Your task to perform on an android device: Go to privacy settings Image 0: 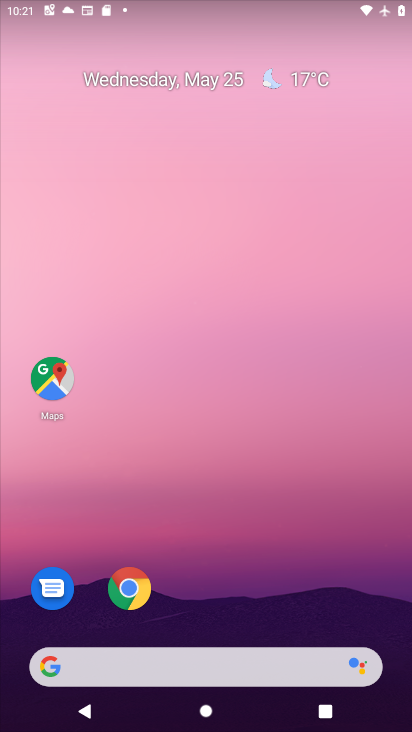
Step 0: drag from (380, 610) to (368, 209)
Your task to perform on an android device: Go to privacy settings Image 1: 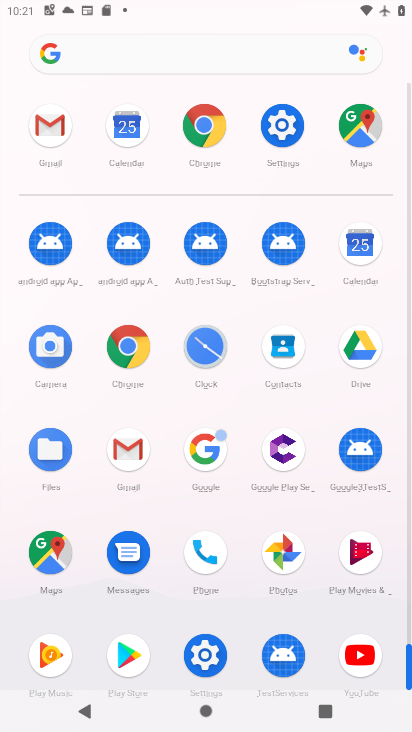
Step 1: click (208, 659)
Your task to perform on an android device: Go to privacy settings Image 2: 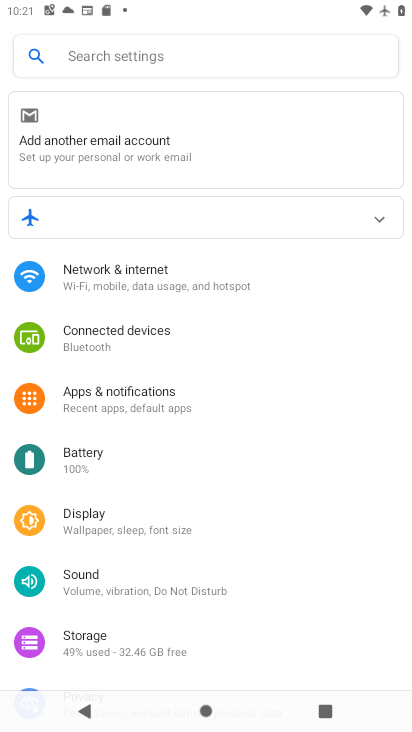
Step 2: drag from (325, 479) to (321, 417)
Your task to perform on an android device: Go to privacy settings Image 3: 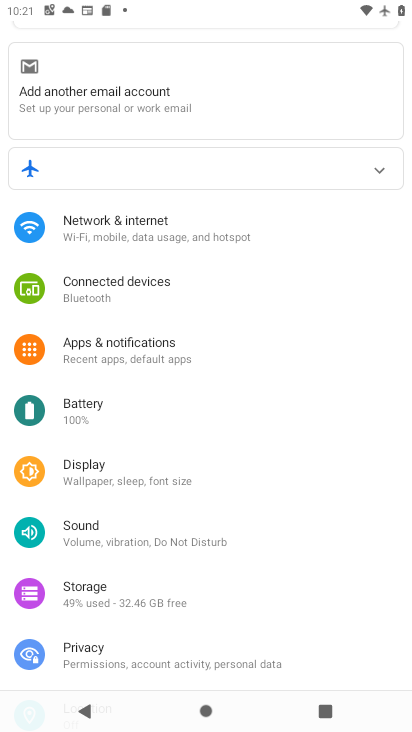
Step 3: drag from (317, 498) to (337, 436)
Your task to perform on an android device: Go to privacy settings Image 4: 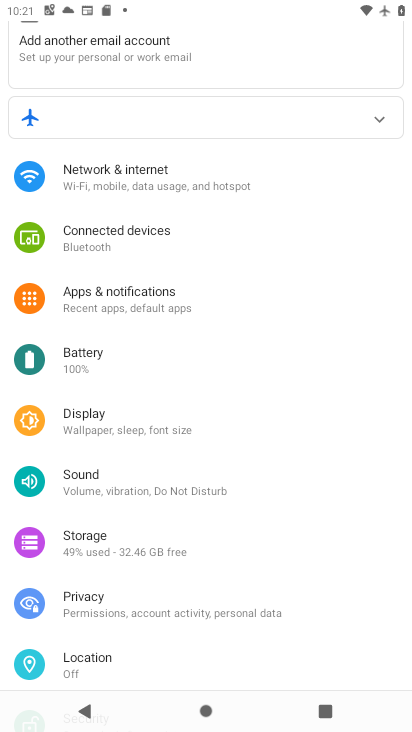
Step 4: drag from (321, 495) to (326, 438)
Your task to perform on an android device: Go to privacy settings Image 5: 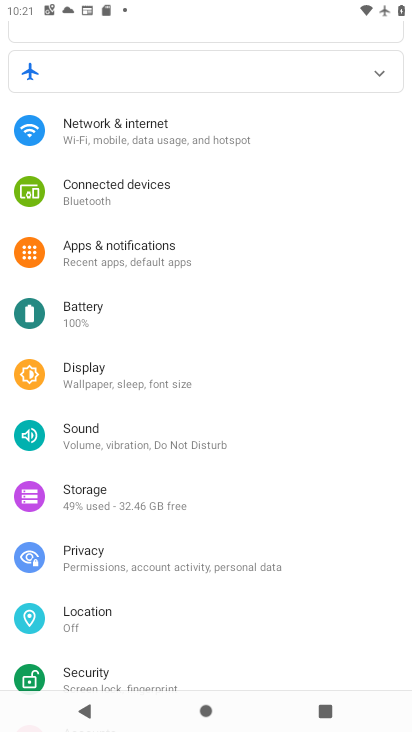
Step 5: drag from (317, 510) to (324, 446)
Your task to perform on an android device: Go to privacy settings Image 6: 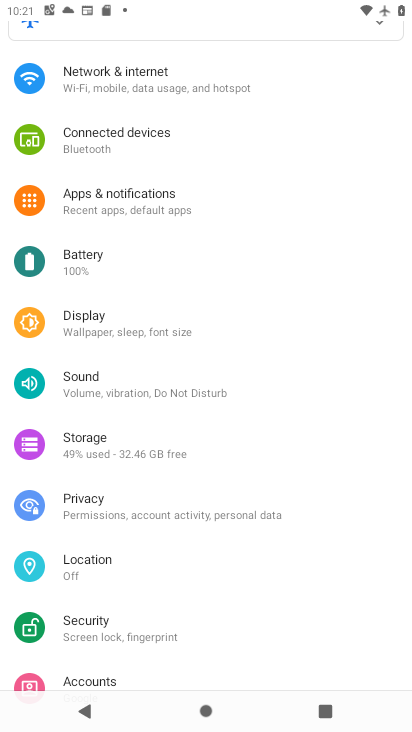
Step 6: drag from (349, 532) to (361, 467)
Your task to perform on an android device: Go to privacy settings Image 7: 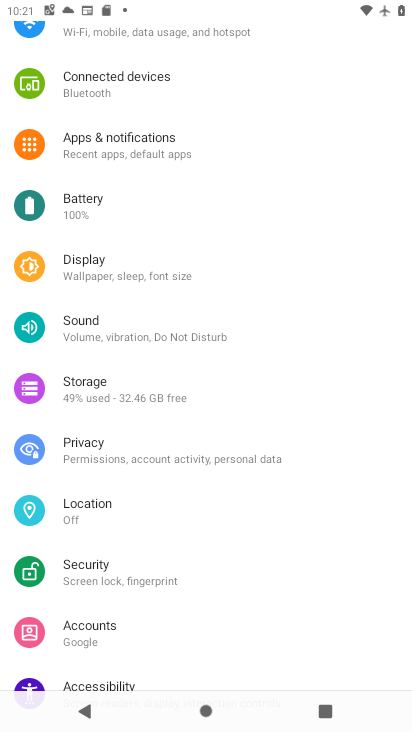
Step 7: drag from (346, 579) to (354, 492)
Your task to perform on an android device: Go to privacy settings Image 8: 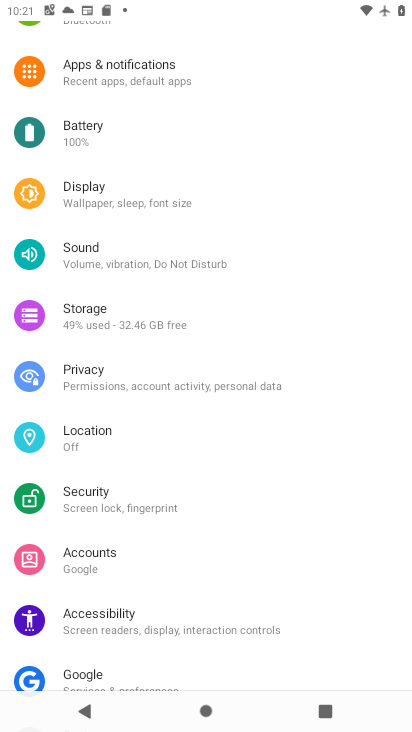
Step 8: drag from (348, 599) to (355, 510)
Your task to perform on an android device: Go to privacy settings Image 9: 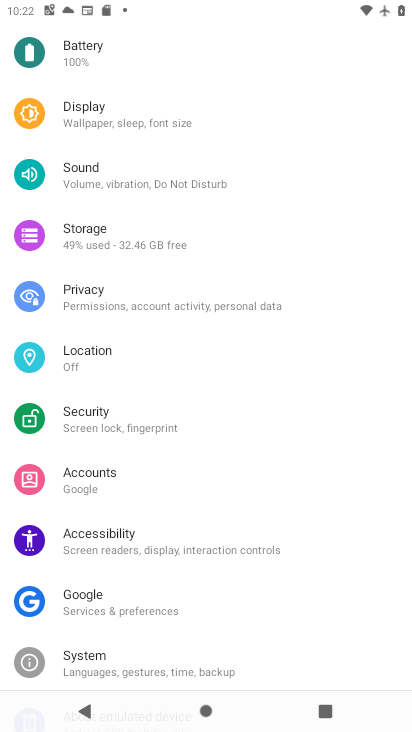
Step 9: drag from (359, 609) to (358, 536)
Your task to perform on an android device: Go to privacy settings Image 10: 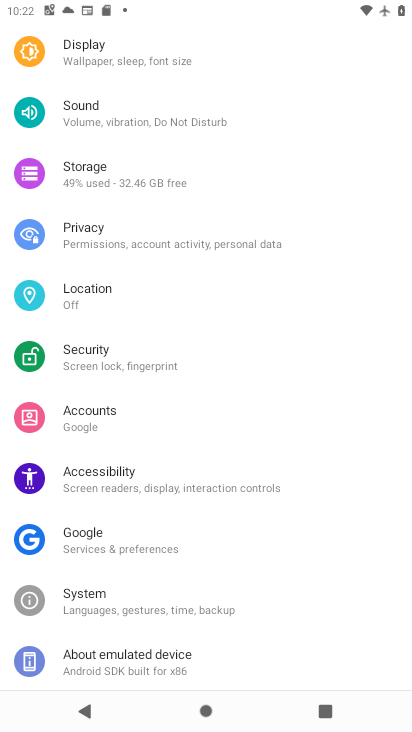
Step 10: drag from (346, 594) to (357, 510)
Your task to perform on an android device: Go to privacy settings Image 11: 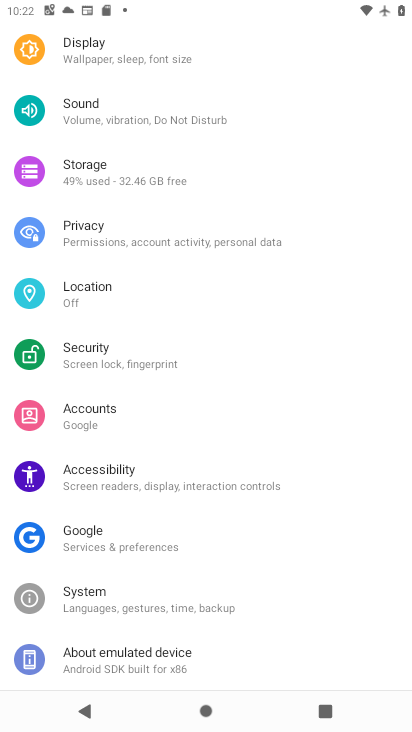
Step 11: drag from (342, 603) to (351, 484)
Your task to perform on an android device: Go to privacy settings Image 12: 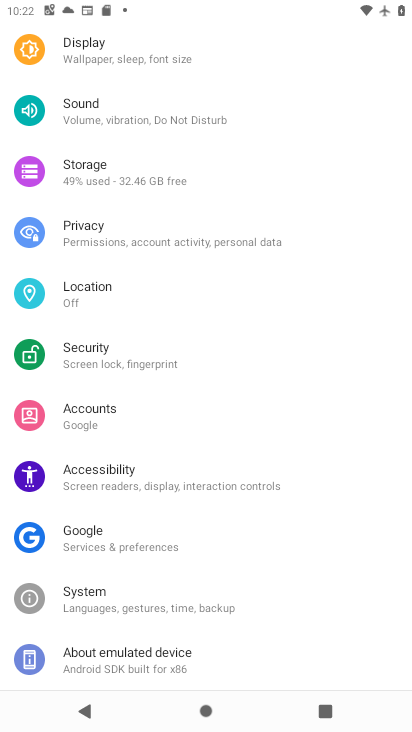
Step 12: drag from (333, 350) to (331, 431)
Your task to perform on an android device: Go to privacy settings Image 13: 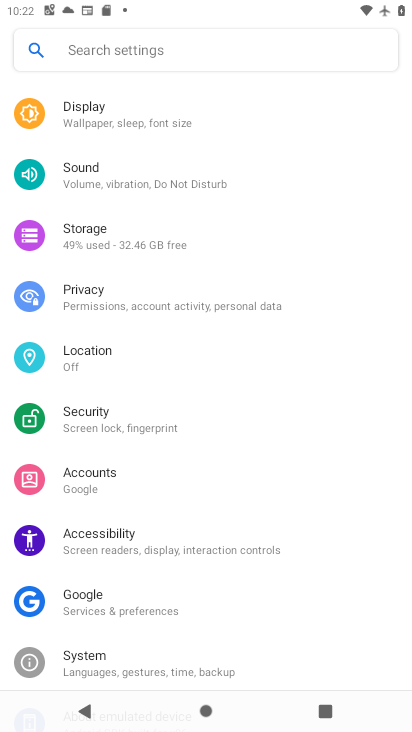
Step 13: drag from (319, 238) to (315, 369)
Your task to perform on an android device: Go to privacy settings Image 14: 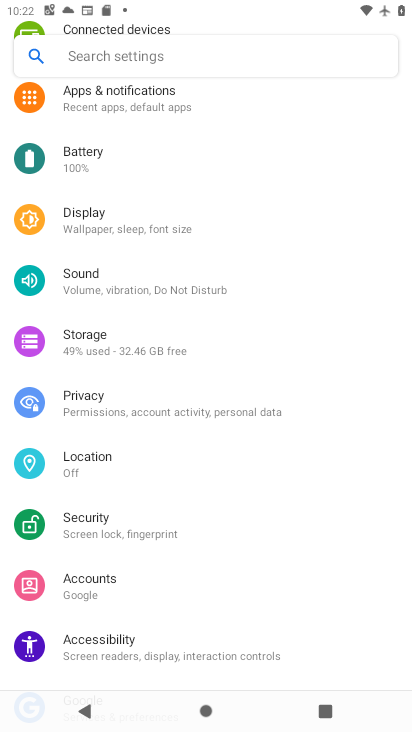
Step 14: click (203, 410)
Your task to perform on an android device: Go to privacy settings Image 15: 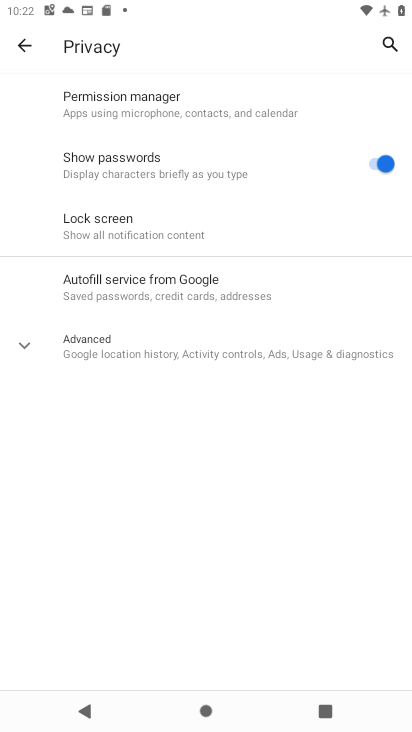
Step 15: task complete